Your task to perform on an android device: turn on bluetooth scan Image 0: 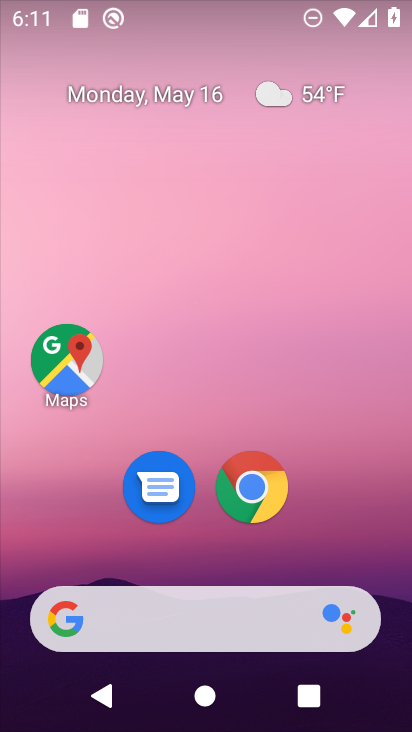
Step 0: drag from (188, 582) to (286, 118)
Your task to perform on an android device: turn on bluetooth scan Image 1: 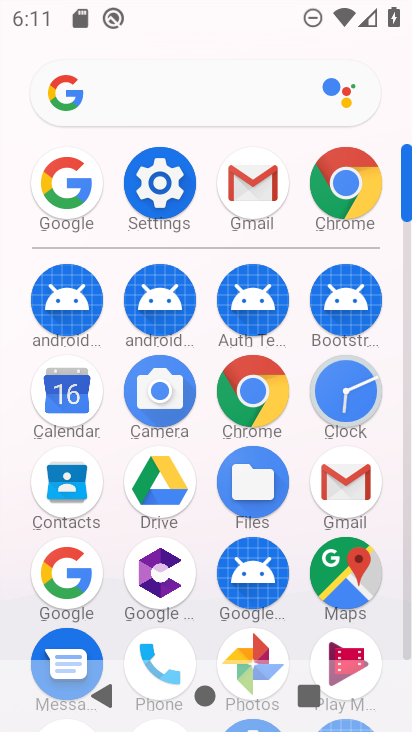
Step 1: click (163, 185)
Your task to perform on an android device: turn on bluetooth scan Image 2: 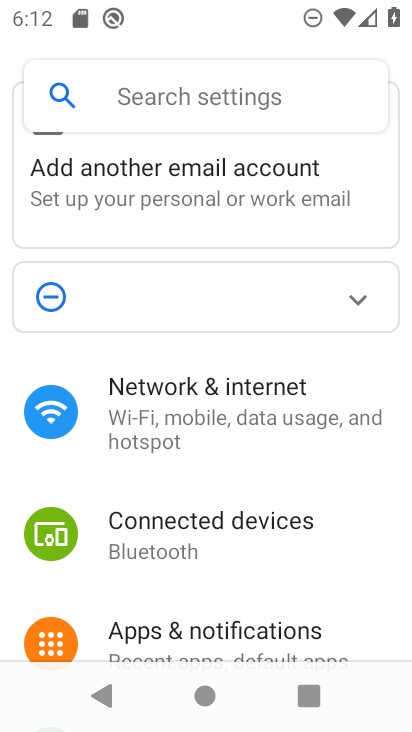
Step 2: drag from (246, 643) to (294, 271)
Your task to perform on an android device: turn on bluetooth scan Image 3: 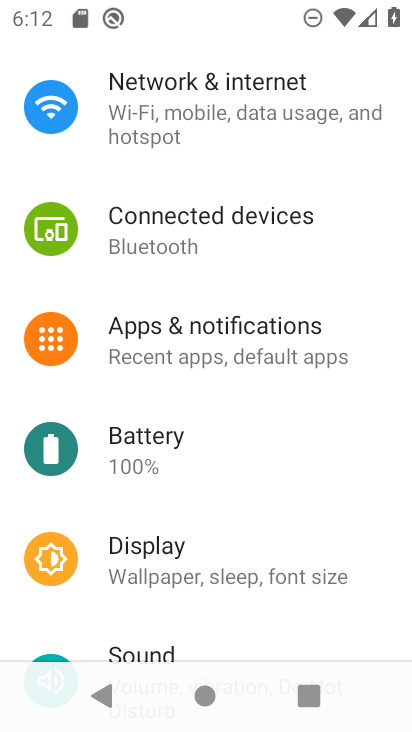
Step 3: drag from (178, 637) to (259, 286)
Your task to perform on an android device: turn on bluetooth scan Image 4: 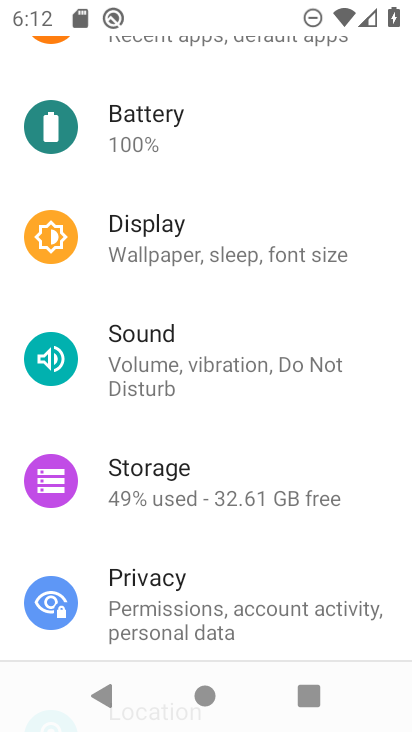
Step 4: drag from (215, 130) to (230, 585)
Your task to perform on an android device: turn on bluetooth scan Image 5: 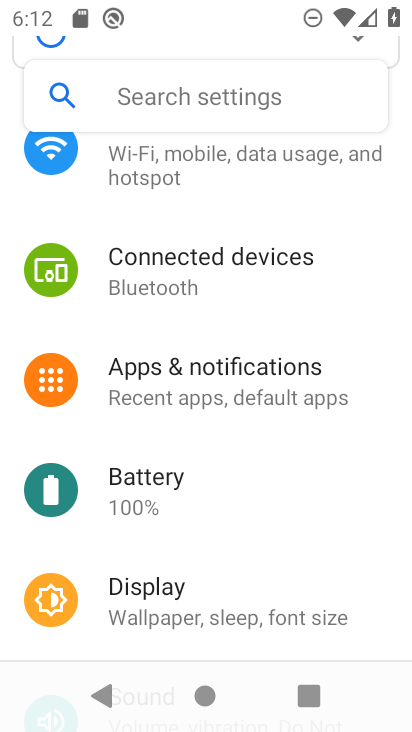
Step 5: drag from (205, 396) to (189, 546)
Your task to perform on an android device: turn on bluetooth scan Image 6: 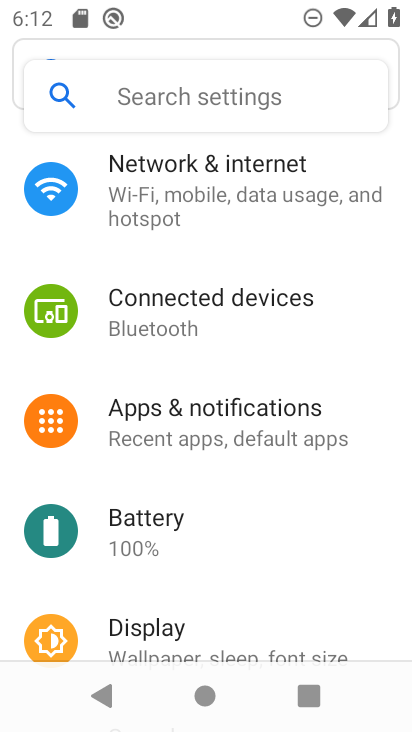
Step 6: drag from (177, 651) to (253, 359)
Your task to perform on an android device: turn on bluetooth scan Image 7: 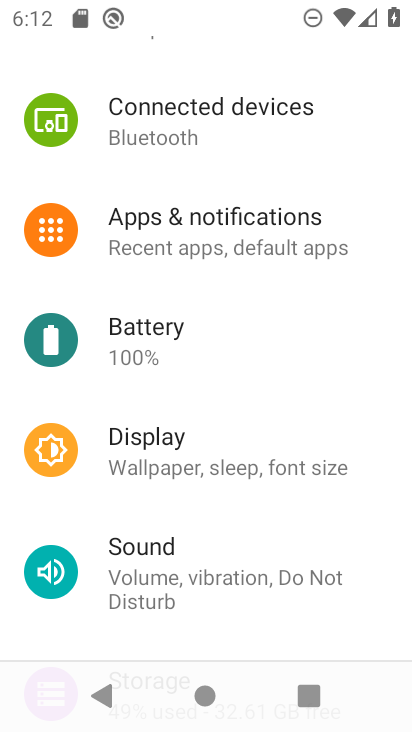
Step 7: drag from (195, 633) to (234, 331)
Your task to perform on an android device: turn on bluetooth scan Image 8: 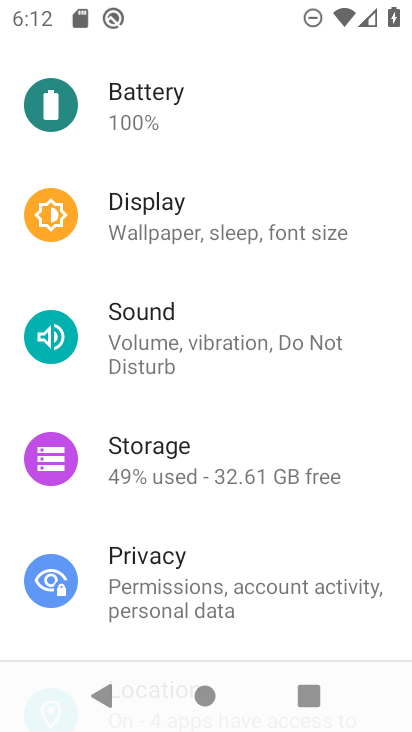
Step 8: drag from (205, 607) to (231, 388)
Your task to perform on an android device: turn on bluetooth scan Image 9: 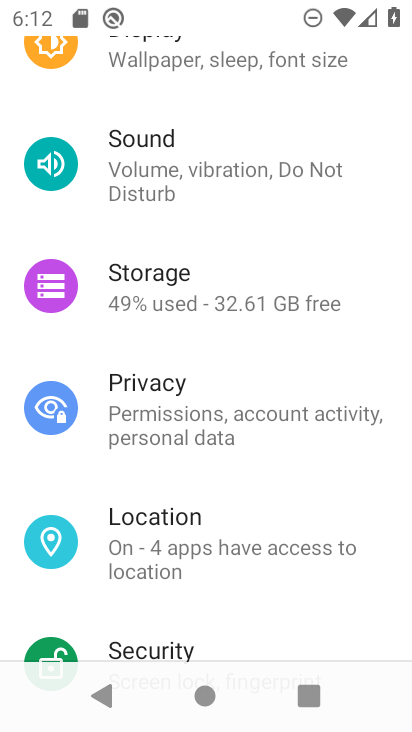
Step 9: click (103, 557)
Your task to perform on an android device: turn on bluetooth scan Image 10: 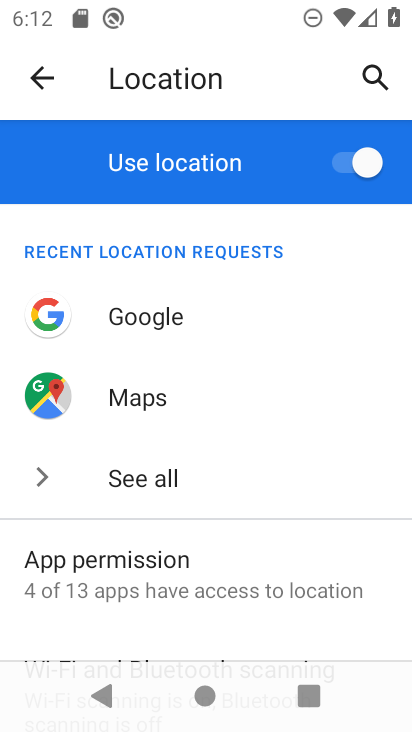
Step 10: drag from (219, 597) to (228, 383)
Your task to perform on an android device: turn on bluetooth scan Image 11: 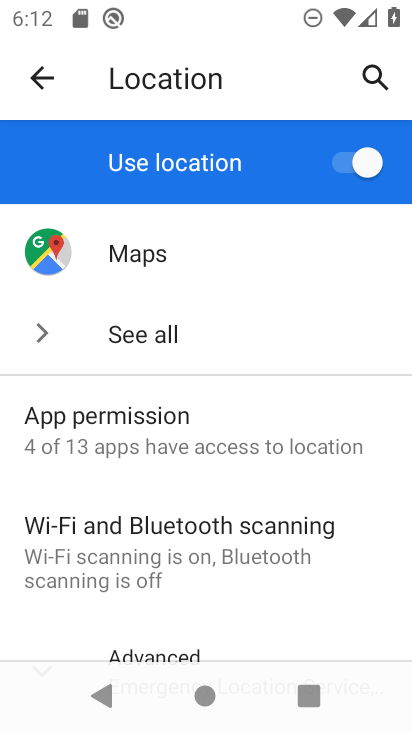
Step 11: drag from (177, 638) to (213, 369)
Your task to perform on an android device: turn on bluetooth scan Image 12: 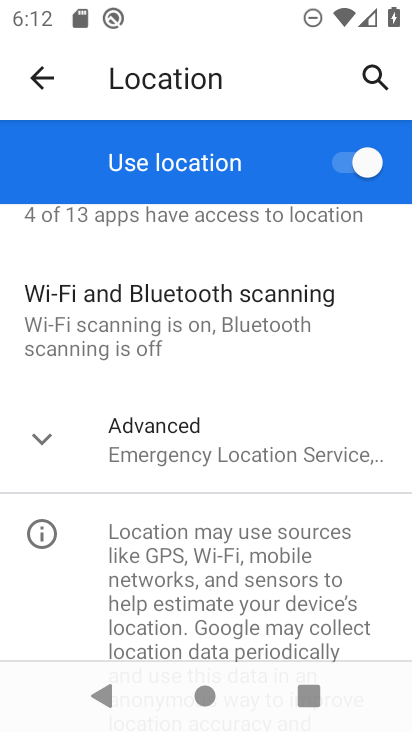
Step 12: drag from (234, 250) to (222, 572)
Your task to perform on an android device: turn on bluetooth scan Image 13: 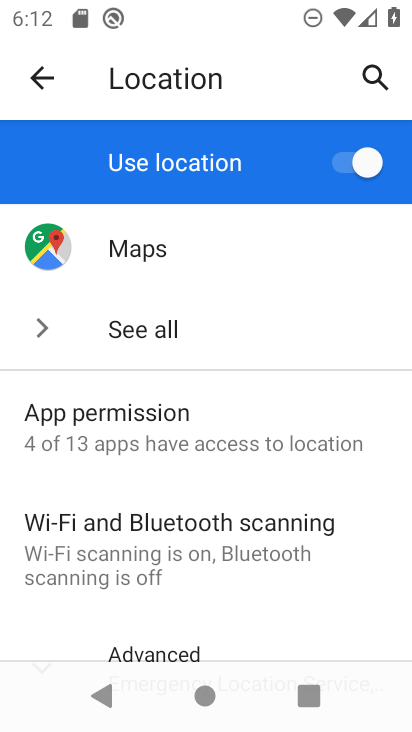
Step 13: click (200, 547)
Your task to perform on an android device: turn on bluetooth scan Image 14: 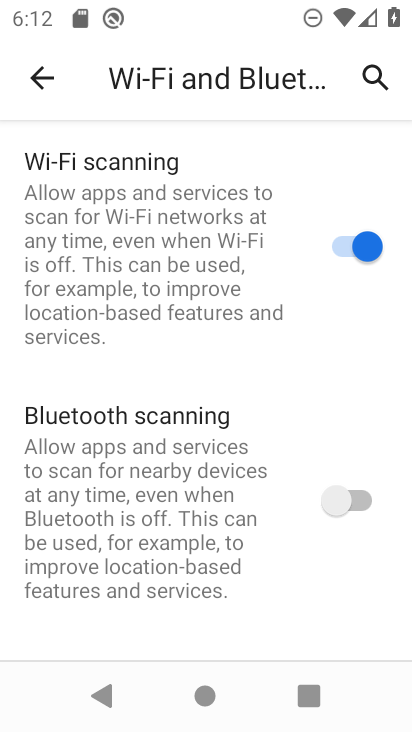
Step 14: click (355, 498)
Your task to perform on an android device: turn on bluetooth scan Image 15: 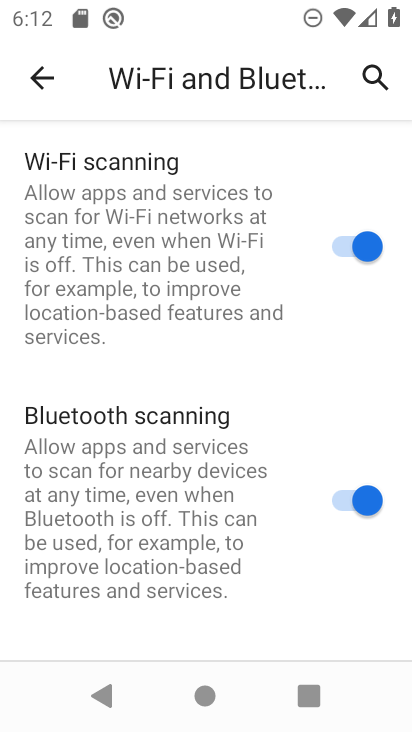
Step 15: task complete